Your task to perform on an android device: allow cookies in the chrome app Image 0: 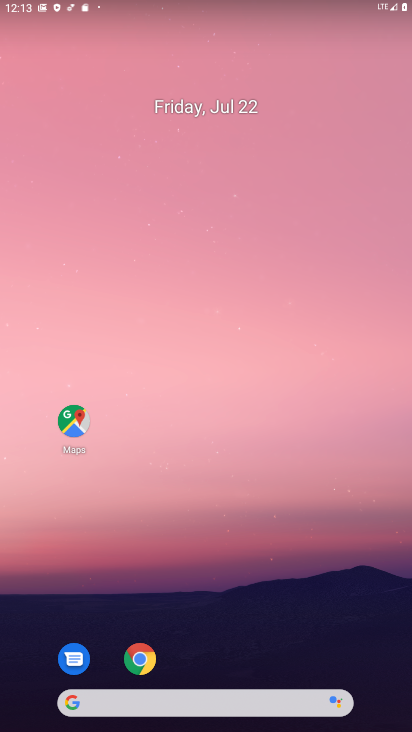
Step 0: click (152, 655)
Your task to perform on an android device: allow cookies in the chrome app Image 1: 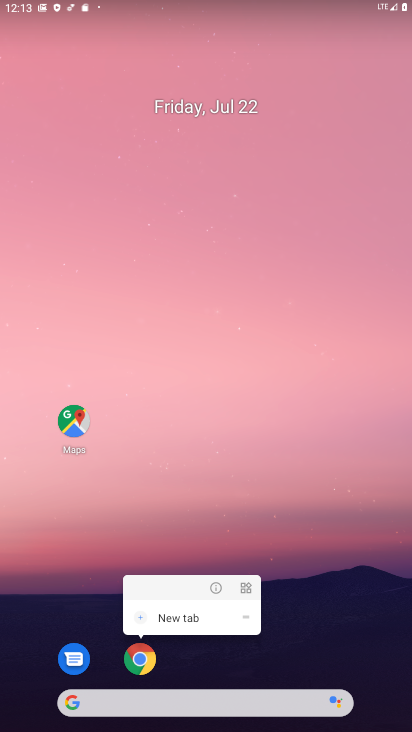
Step 1: click (147, 657)
Your task to perform on an android device: allow cookies in the chrome app Image 2: 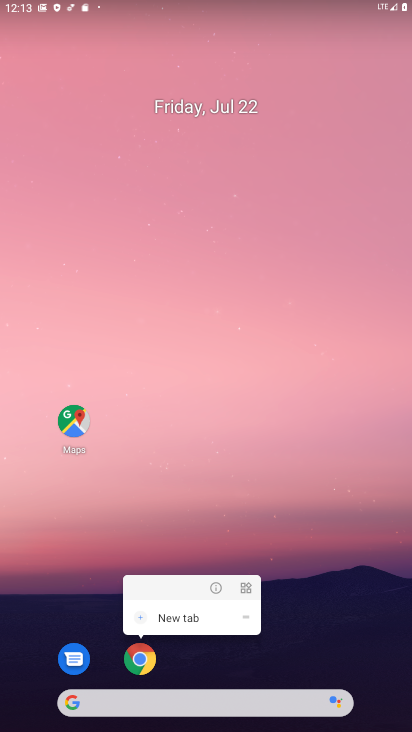
Step 2: click (142, 661)
Your task to perform on an android device: allow cookies in the chrome app Image 3: 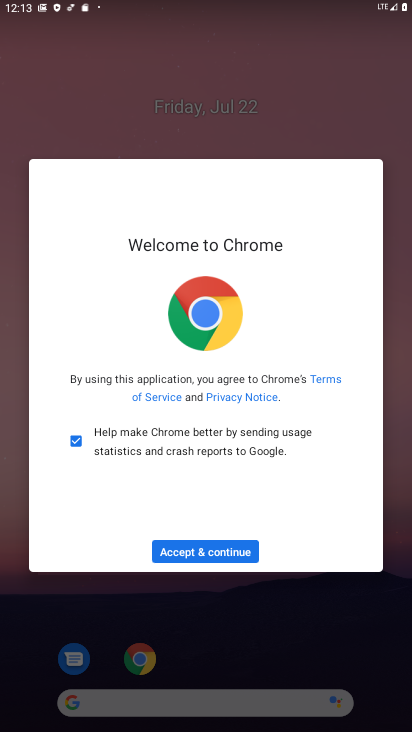
Step 3: click (176, 539)
Your task to perform on an android device: allow cookies in the chrome app Image 4: 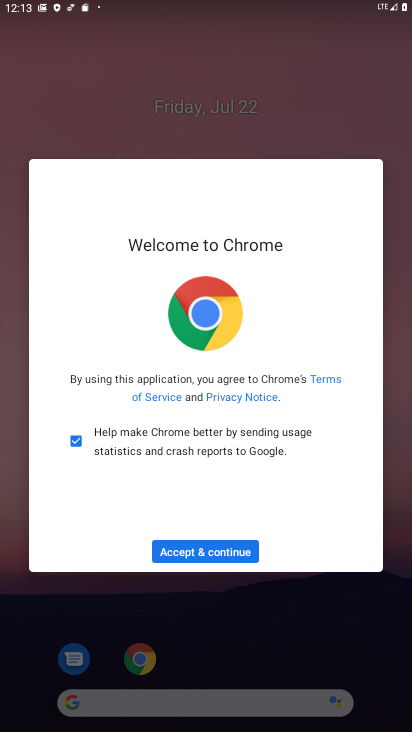
Step 4: click (225, 557)
Your task to perform on an android device: allow cookies in the chrome app Image 5: 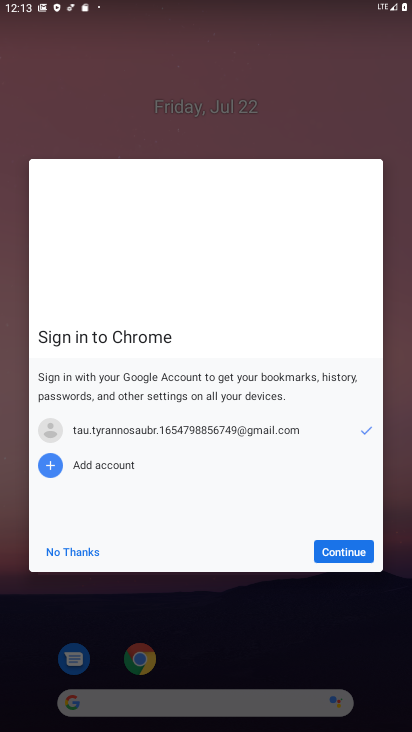
Step 5: click (351, 542)
Your task to perform on an android device: allow cookies in the chrome app Image 6: 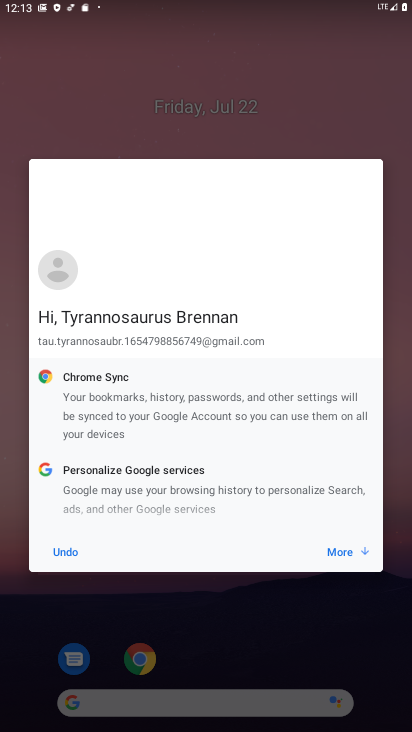
Step 6: click (329, 543)
Your task to perform on an android device: allow cookies in the chrome app Image 7: 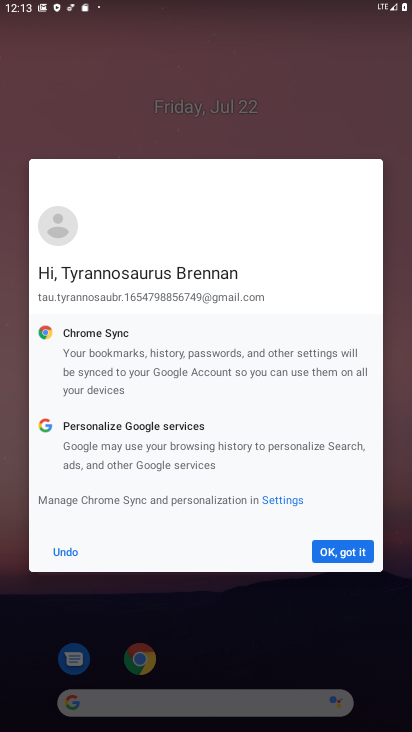
Step 7: click (330, 558)
Your task to perform on an android device: allow cookies in the chrome app Image 8: 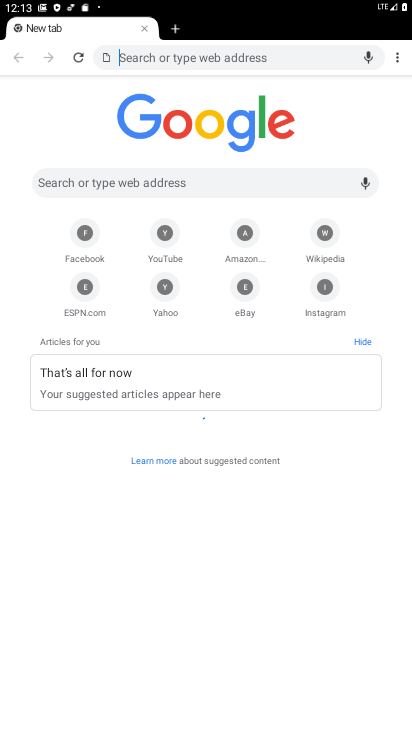
Step 8: click (396, 56)
Your task to perform on an android device: allow cookies in the chrome app Image 9: 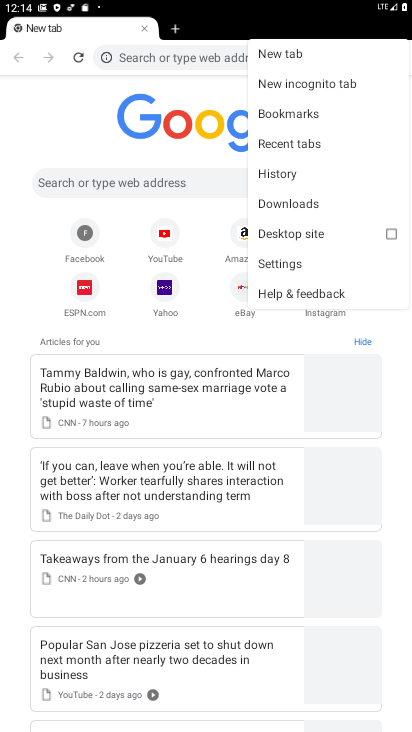
Step 9: click (289, 259)
Your task to perform on an android device: allow cookies in the chrome app Image 10: 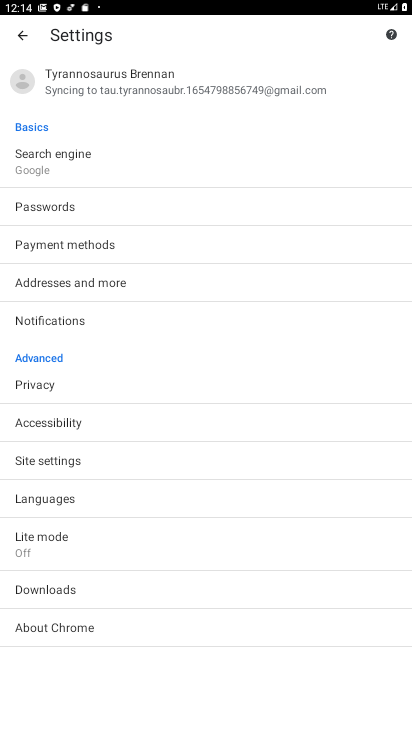
Step 10: click (119, 461)
Your task to perform on an android device: allow cookies in the chrome app Image 11: 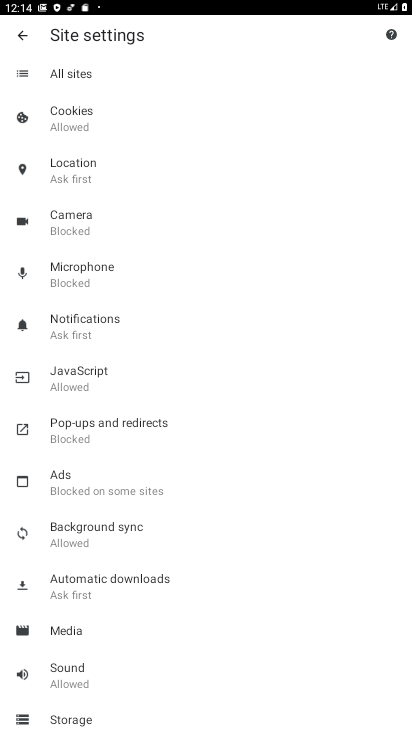
Step 11: click (113, 109)
Your task to perform on an android device: allow cookies in the chrome app Image 12: 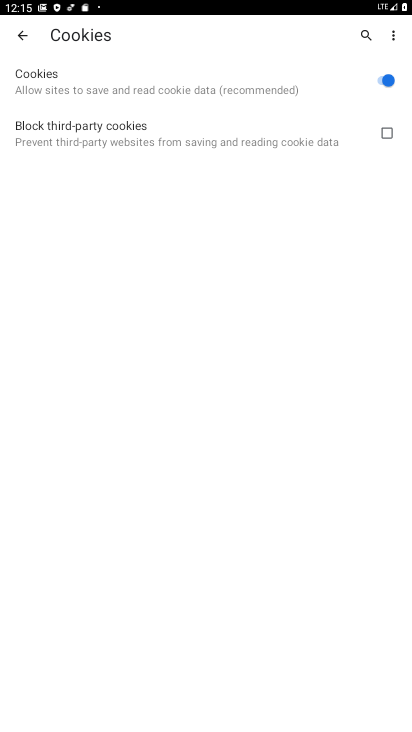
Step 12: task complete